Your task to perform on an android device: Go to calendar. Show me events next week Image 0: 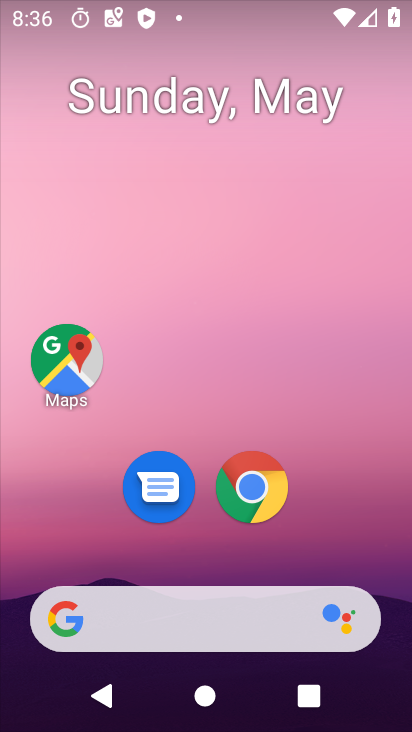
Step 0: press home button
Your task to perform on an android device: Go to calendar. Show me events next week Image 1: 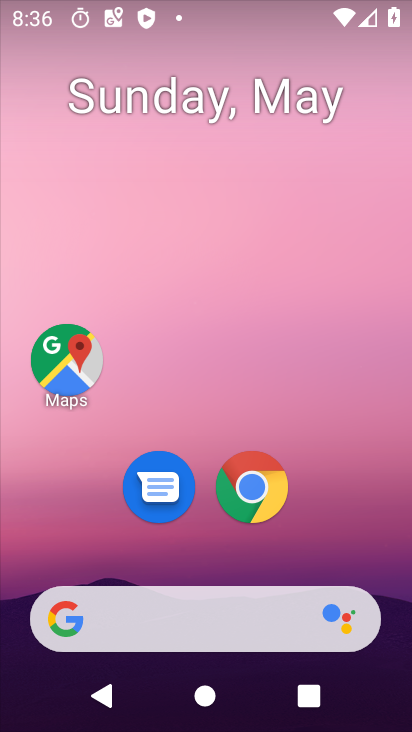
Step 1: drag from (34, 450) to (171, 116)
Your task to perform on an android device: Go to calendar. Show me events next week Image 2: 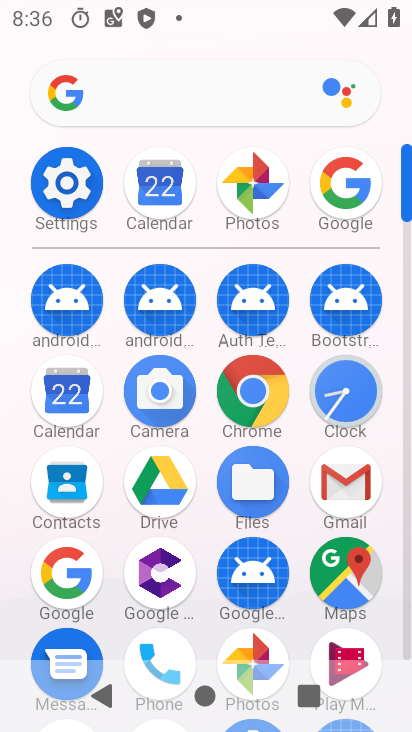
Step 2: click (66, 425)
Your task to perform on an android device: Go to calendar. Show me events next week Image 3: 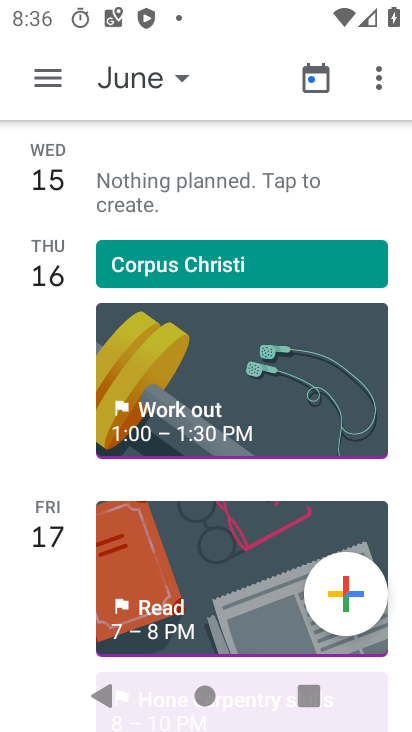
Step 3: task complete